Your task to perform on an android device: Is it going to rain tomorrow? Image 0: 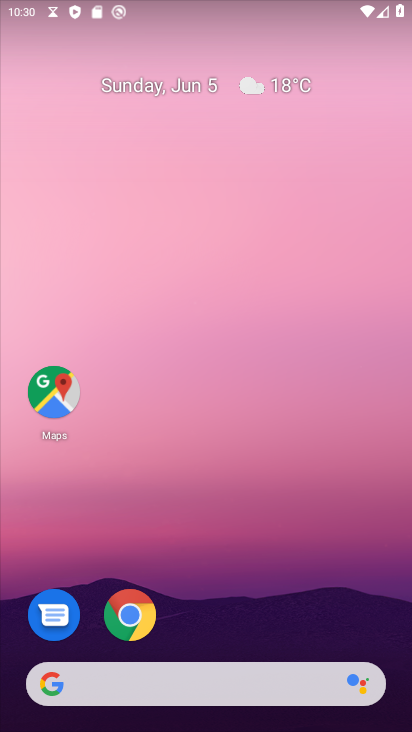
Step 0: click (280, 96)
Your task to perform on an android device: Is it going to rain tomorrow? Image 1: 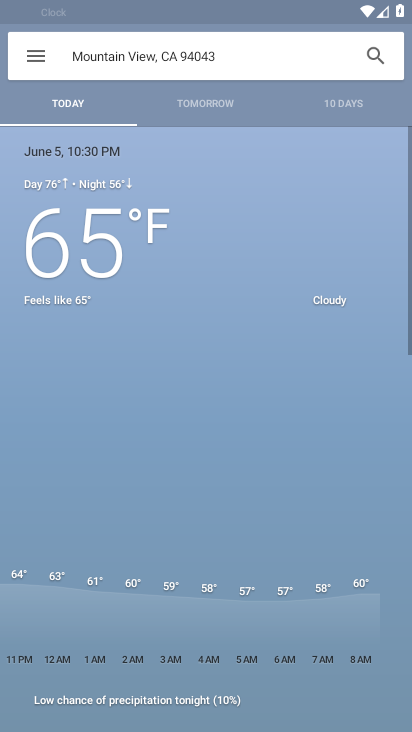
Step 1: click (193, 118)
Your task to perform on an android device: Is it going to rain tomorrow? Image 2: 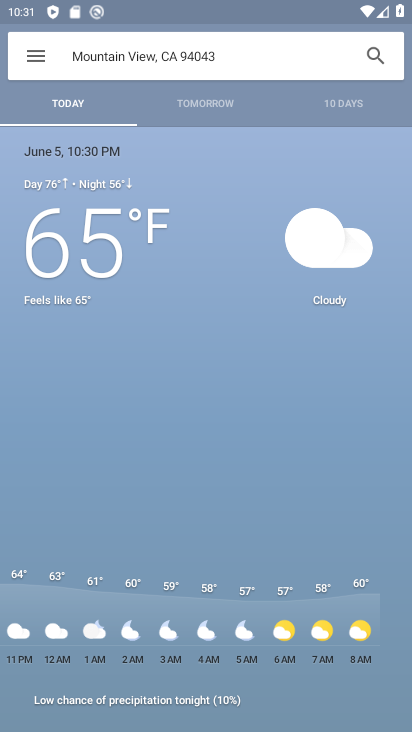
Step 2: click (212, 93)
Your task to perform on an android device: Is it going to rain tomorrow? Image 3: 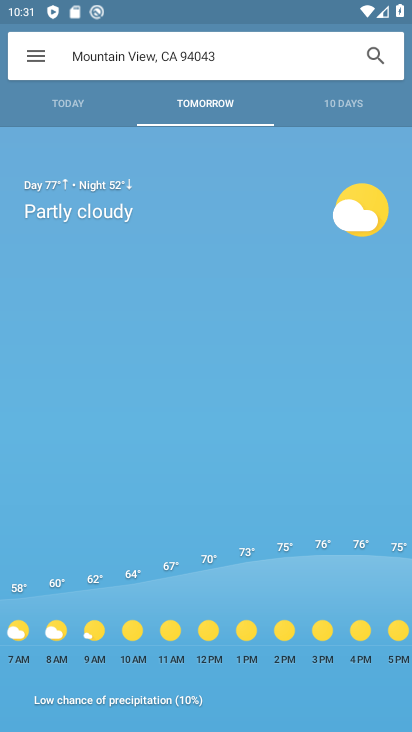
Step 3: task complete